Your task to perform on an android device: turn on sleep mode Image 0: 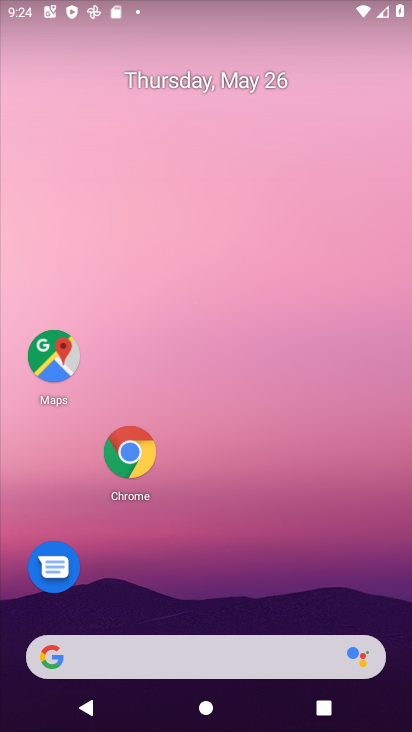
Step 0: press home button
Your task to perform on an android device: turn on sleep mode Image 1: 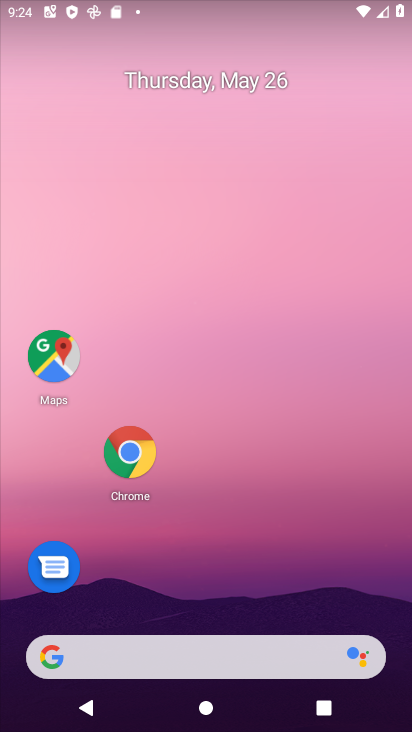
Step 1: drag from (213, 641) to (381, 67)
Your task to perform on an android device: turn on sleep mode Image 2: 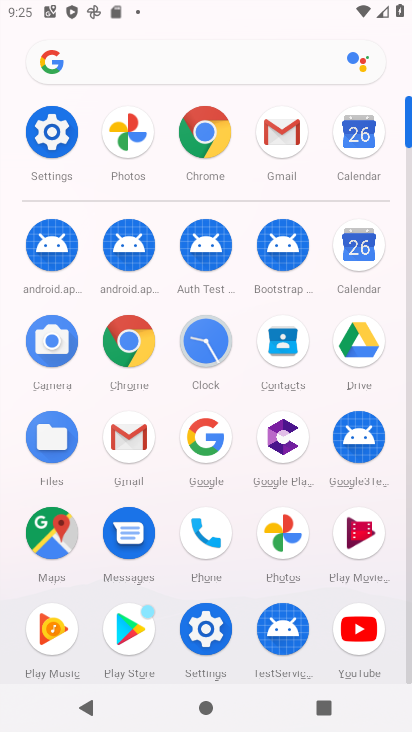
Step 2: click (51, 132)
Your task to perform on an android device: turn on sleep mode Image 3: 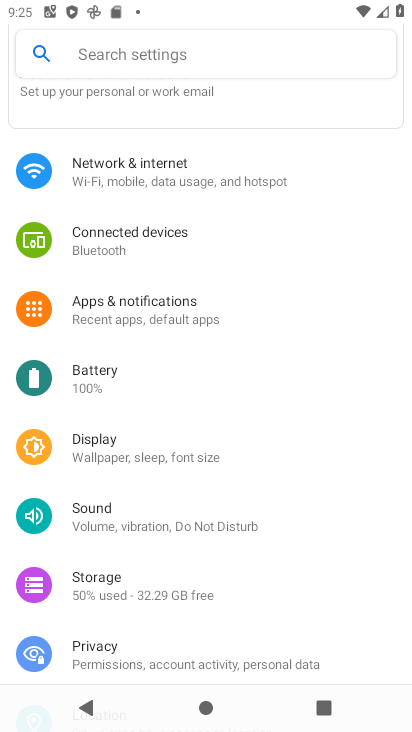
Step 3: drag from (225, 590) to (267, 423)
Your task to perform on an android device: turn on sleep mode Image 4: 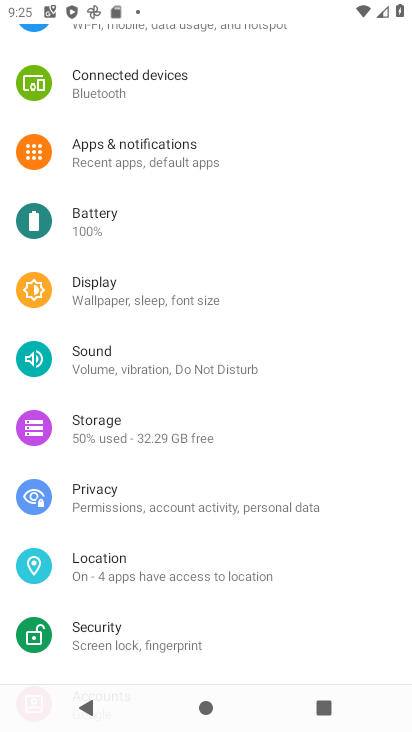
Step 4: click (106, 291)
Your task to perform on an android device: turn on sleep mode Image 5: 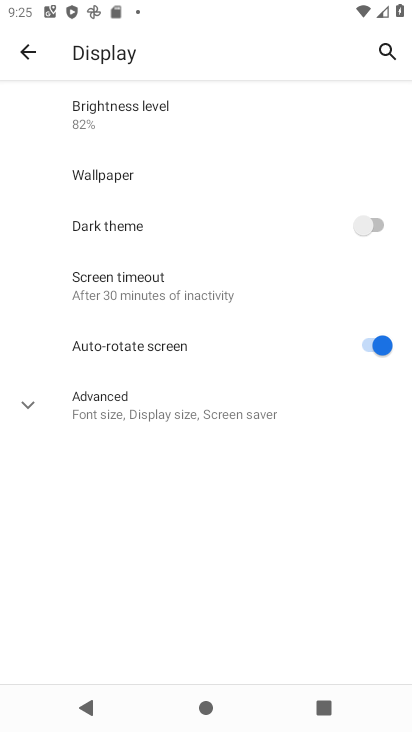
Step 5: task complete